Your task to perform on an android device: find snoozed emails in the gmail app Image 0: 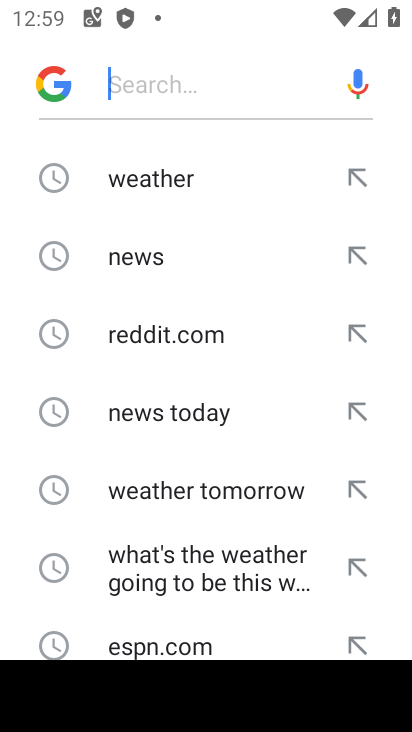
Step 0: press home button
Your task to perform on an android device: find snoozed emails in the gmail app Image 1: 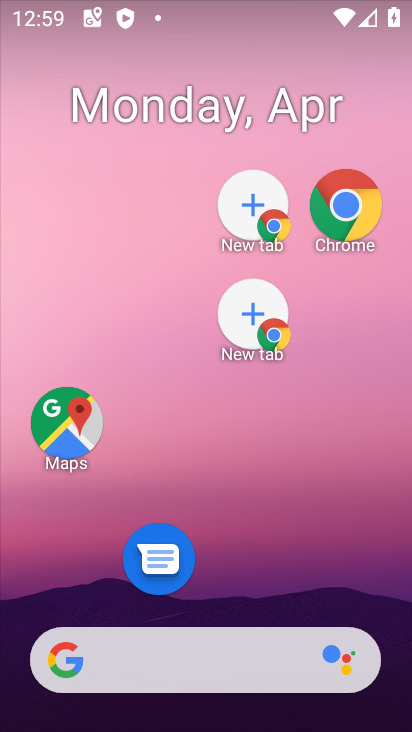
Step 1: drag from (96, 342) to (167, 164)
Your task to perform on an android device: find snoozed emails in the gmail app Image 2: 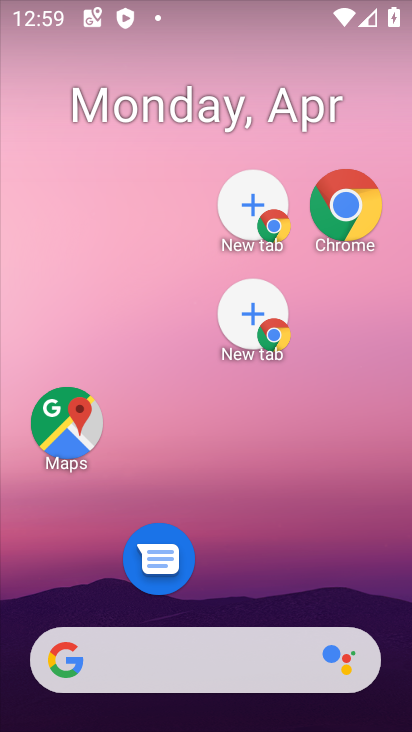
Step 2: drag from (71, 544) to (202, 216)
Your task to perform on an android device: find snoozed emails in the gmail app Image 3: 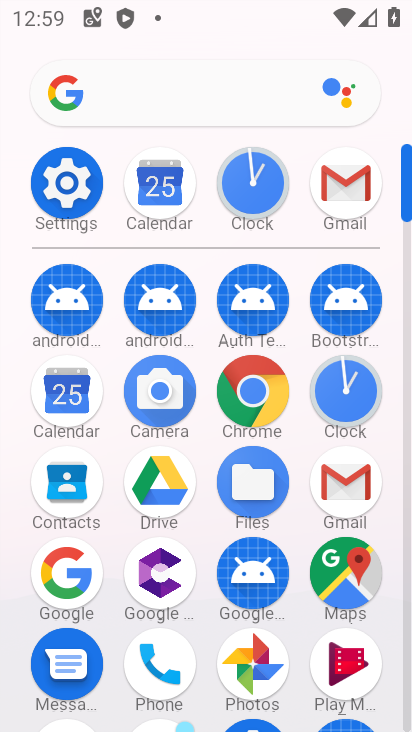
Step 3: click (328, 185)
Your task to perform on an android device: find snoozed emails in the gmail app Image 4: 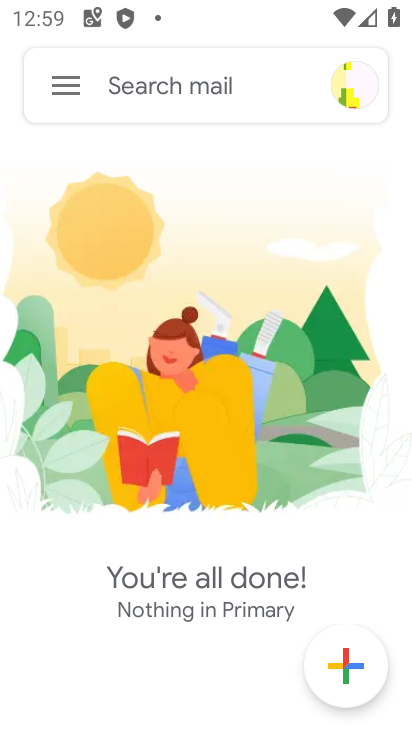
Step 4: click (51, 86)
Your task to perform on an android device: find snoozed emails in the gmail app Image 5: 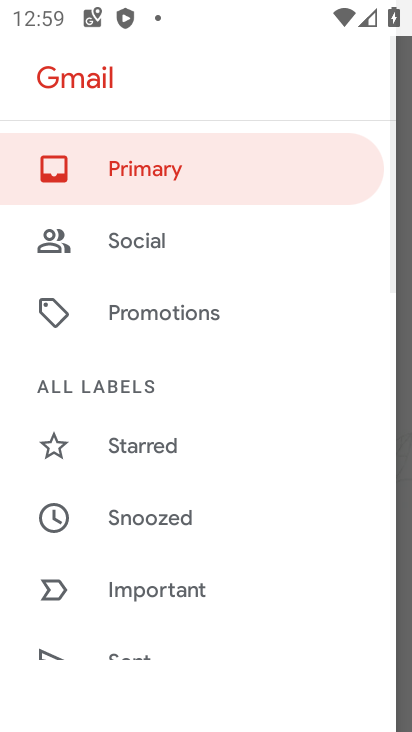
Step 5: click (154, 523)
Your task to perform on an android device: find snoozed emails in the gmail app Image 6: 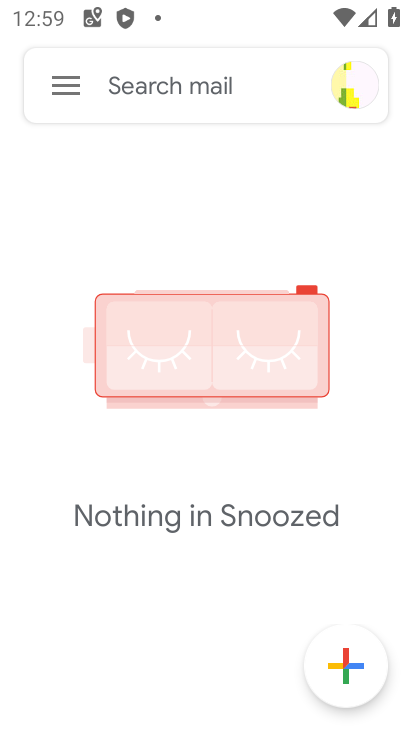
Step 6: task complete